Your task to perform on an android device: Open maps Image 0: 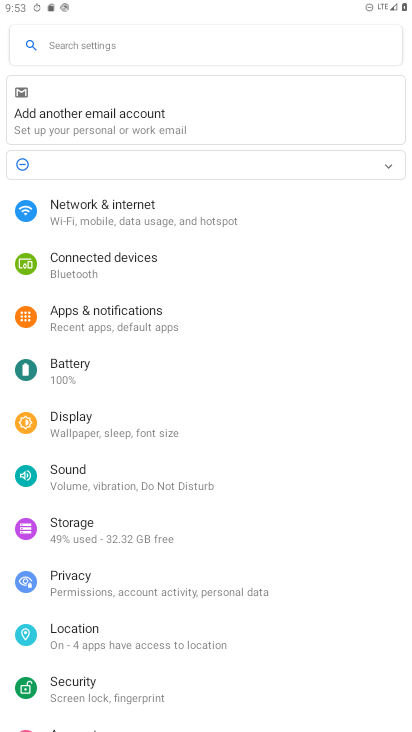
Step 0: press home button
Your task to perform on an android device: Open maps Image 1: 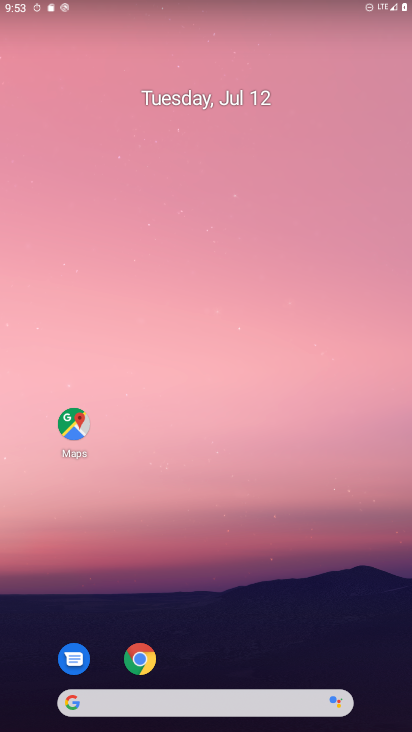
Step 1: drag from (379, 707) to (257, 36)
Your task to perform on an android device: Open maps Image 2: 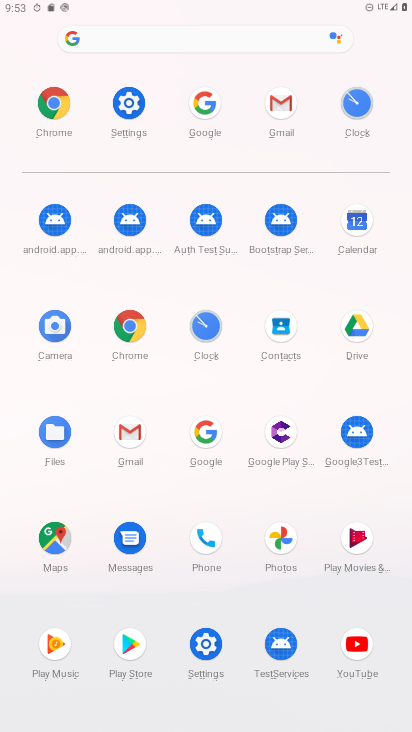
Step 2: click (60, 542)
Your task to perform on an android device: Open maps Image 3: 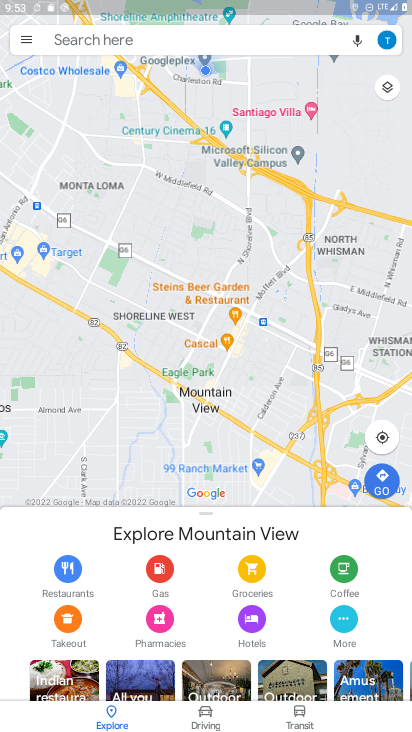
Step 3: task complete